Your task to perform on an android device: What's on my calendar today? Image 0: 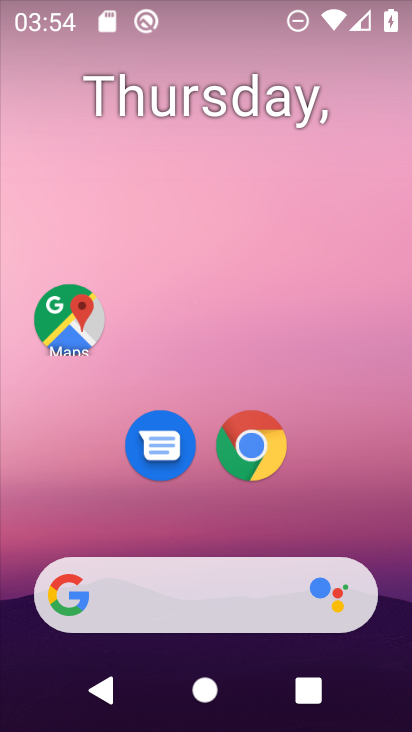
Step 0: drag from (358, 535) to (305, 0)
Your task to perform on an android device: What's on my calendar today? Image 1: 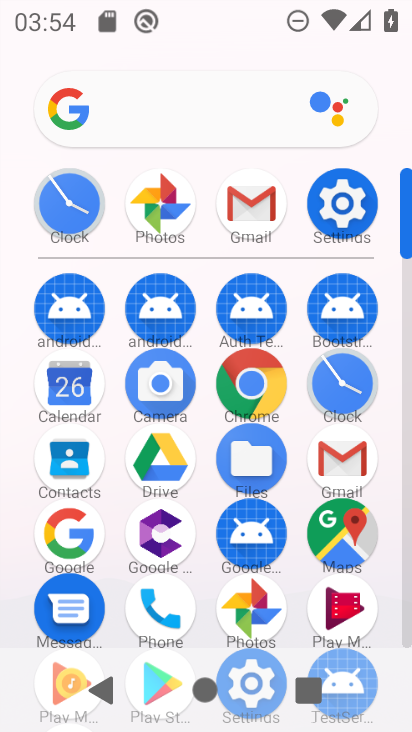
Step 1: click (72, 389)
Your task to perform on an android device: What's on my calendar today? Image 2: 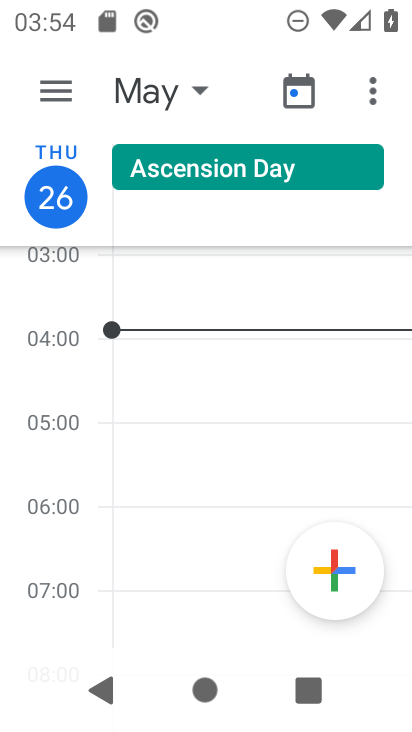
Step 2: task complete